Your task to perform on an android device: When is my next meeting? Image 0: 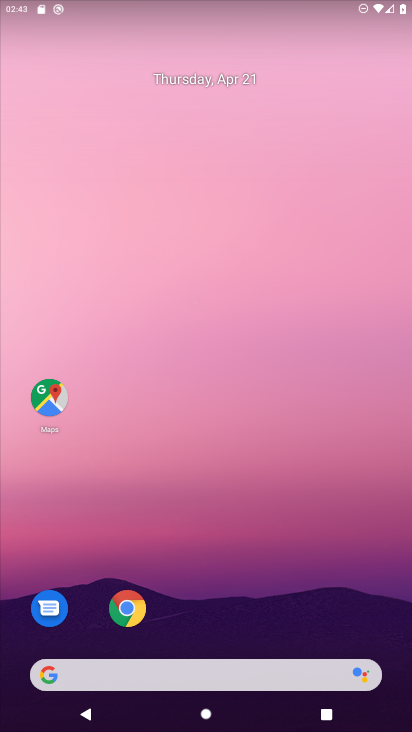
Step 0: drag from (263, 405) to (257, 50)
Your task to perform on an android device: When is my next meeting? Image 1: 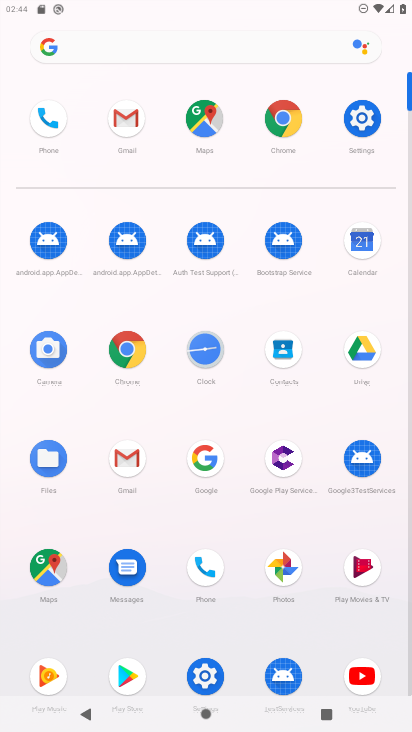
Step 1: click (362, 240)
Your task to perform on an android device: When is my next meeting? Image 2: 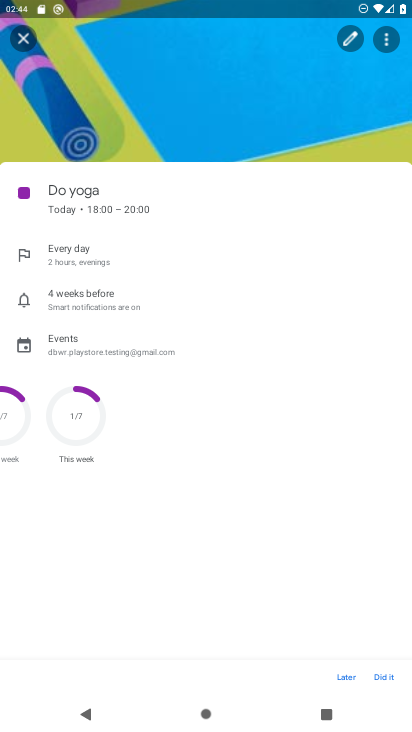
Step 2: click (26, 41)
Your task to perform on an android device: When is my next meeting? Image 3: 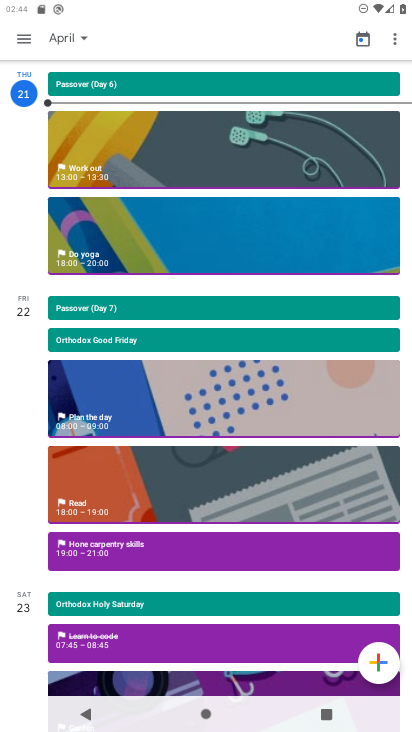
Step 3: click (23, 39)
Your task to perform on an android device: When is my next meeting? Image 4: 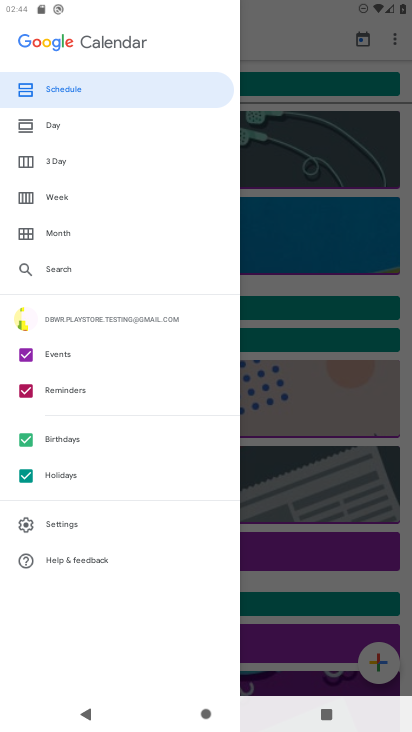
Step 4: click (59, 229)
Your task to perform on an android device: When is my next meeting? Image 5: 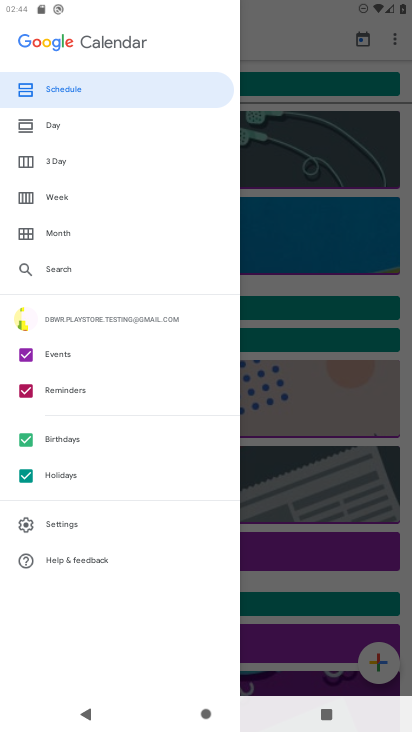
Step 5: click (69, 226)
Your task to perform on an android device: When is my next meeting? Image 6: 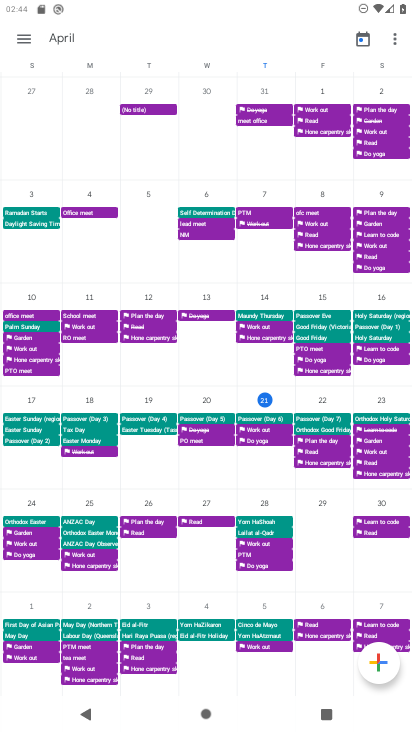
Step 6: click (303, 391)
Your task to perform on an android device: When is my next meeting? Image 7: 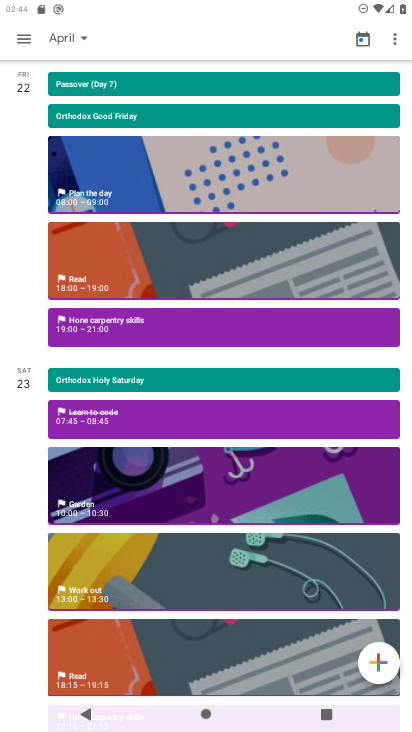
Step 7: task complete